Your task to perform on an android device: delete the emails in spam in the gmail app Image 0: 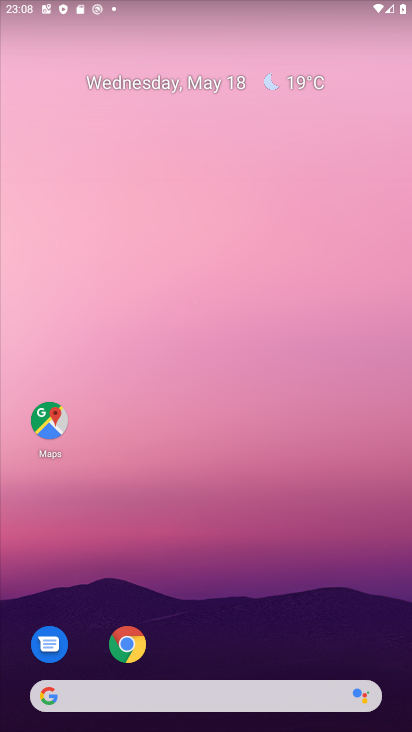
Step 0: drag from (262, 628) to (247, 188)
Your task to perform on an android device: delete the emails in spam in the gmail app Image 1: 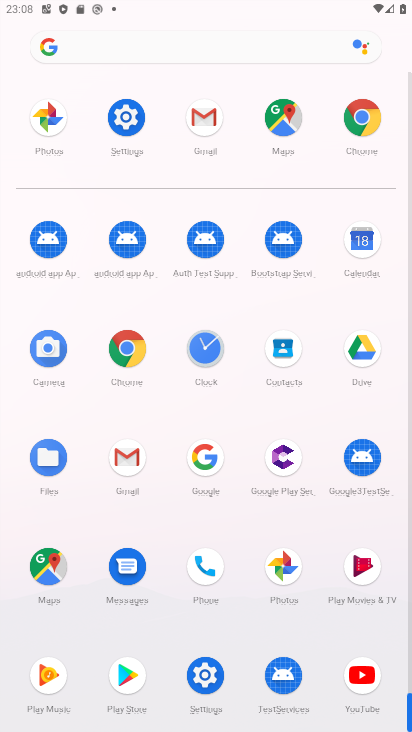
Step 1: click (194, 111)
Your task to perform on an android device: delete the emails in spam in the gmail app Image 2: 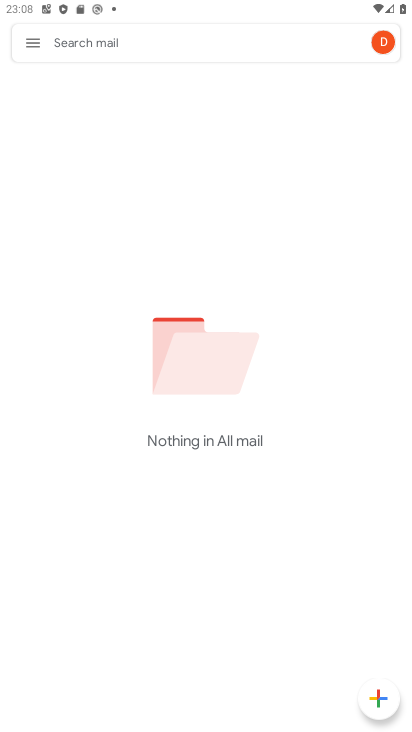
Step 2: click (39, 34)
Your task to perform on an android device: delete the emails in spam in the gmail app Image 3: 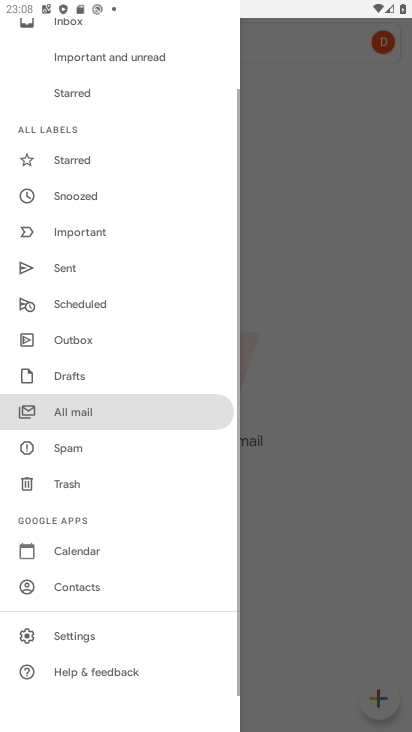
Step 3: drag from (165, 582) to (169, 332)
Your task to perform on an android device: delete the emails in spam in the gmail app Image 4: 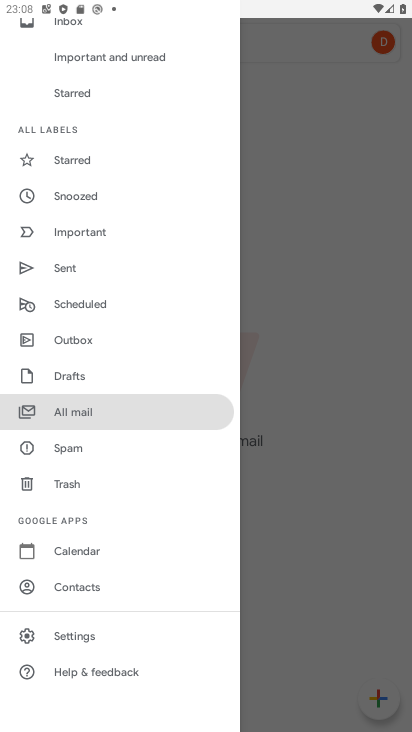
Step 4: drag from (118, 250) to (105, 334)
Your task to perform on an android device: delete the emails in spam in the gmail app Image 5: 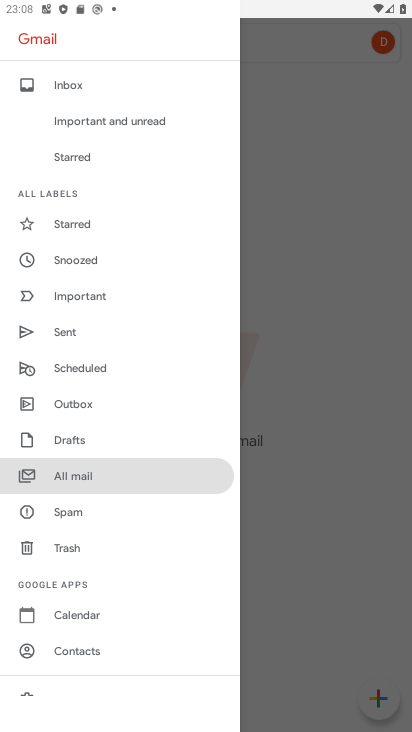
Step 5: click (74, 515)
Your task to perform on an android device: delete the emails in spam in the gmail app Image 6: 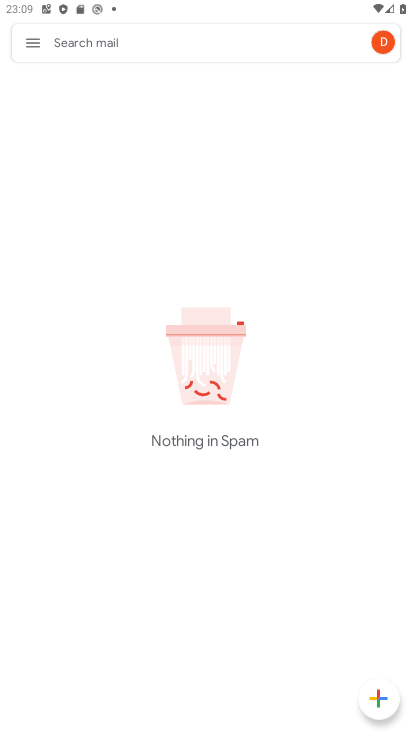
Step 6: click (25, 43)
Your task to perform on an android device: delete the emails in spam in the gmail app Image 7: 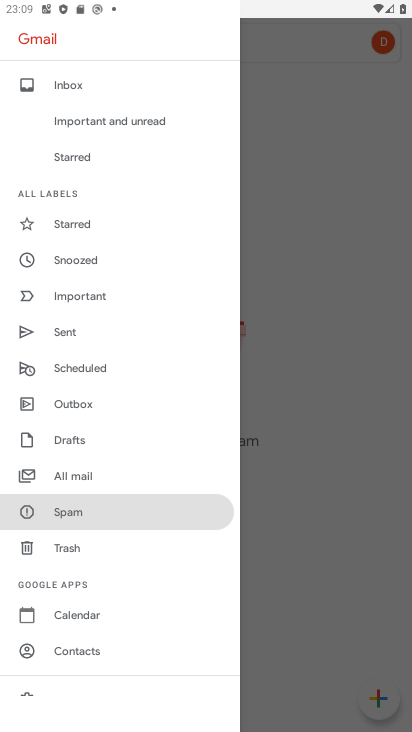
Step 7: click (113, 513)
Your task to perform on an android device: delete the emails in spam in the gmail app Image 8: 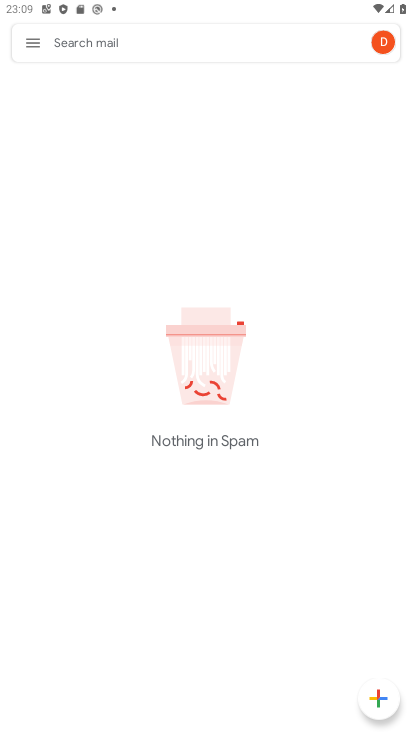
Step 8: task complete